Your task to perform on an android device: stop showing notifications on the lock screen Image 0: 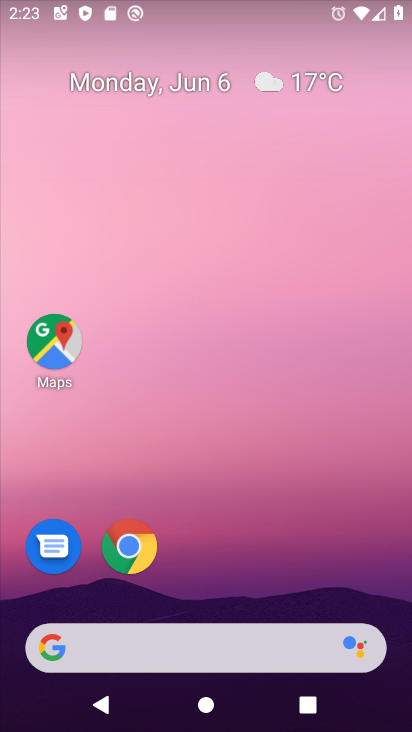
Step 0: drag from (232, 569) to (220, 276)
Your task to perform on an android device: stop showing notifications on the lock screen Image 1: 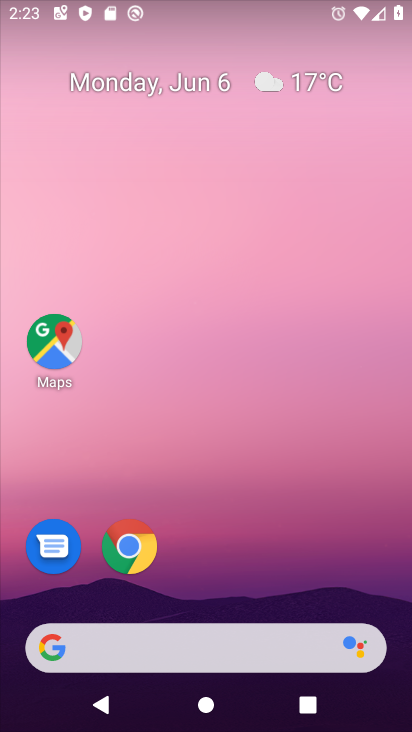
Step 1: drag from (207, 578) to (203, 315)
Your task to perform on an android device: stop showing notifications on the lock screen Image 2: 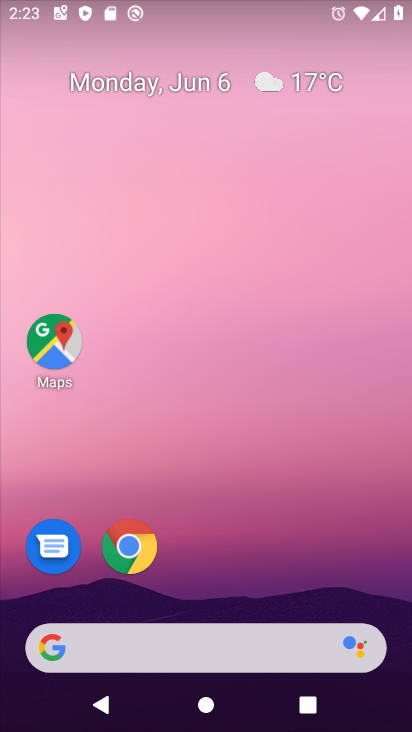
Step 2: drag from (192, 607) to (195, 195)
Your task to perform on an android device: stop showing notifications on the lock screen Image 3: 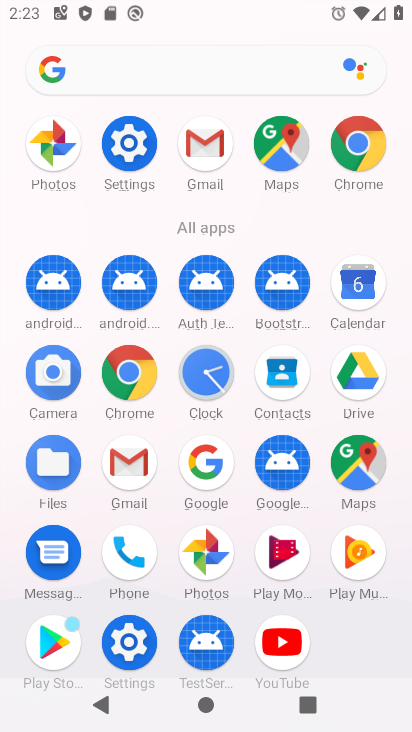
Step 3: click (118, 135)
Your task to perform on an android device: stop showing notifications on the lock screen Image 4: 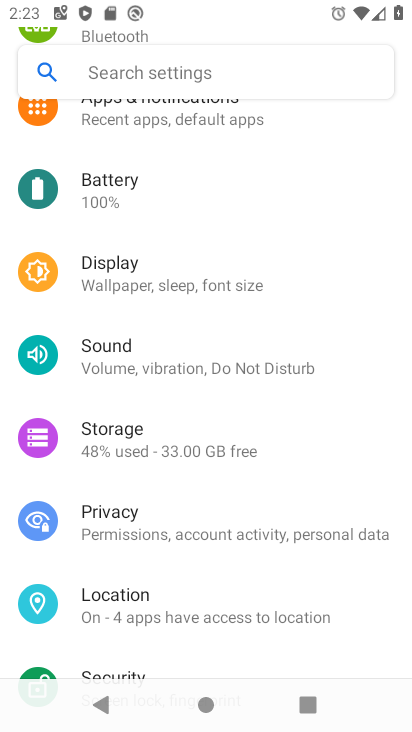
Step 4: drag from (218, 170) to (182, 538)
Your task to perform on an android device: stop showing notifications on the lock screen Image 5: 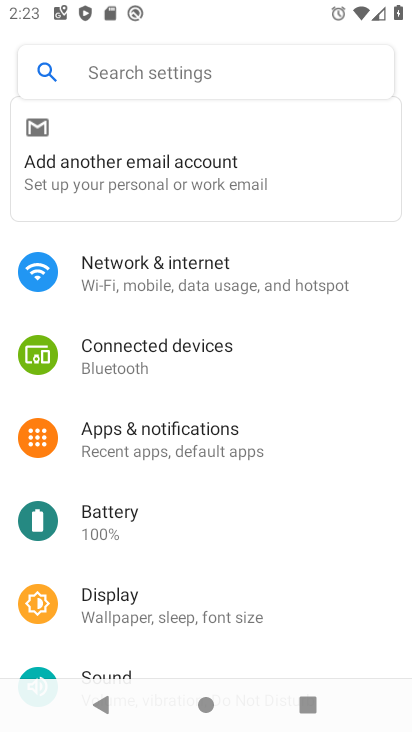
Step 5: click (157, 254)
Your task to perform on an android device: stop showing notifications on the lock screen Image 6: 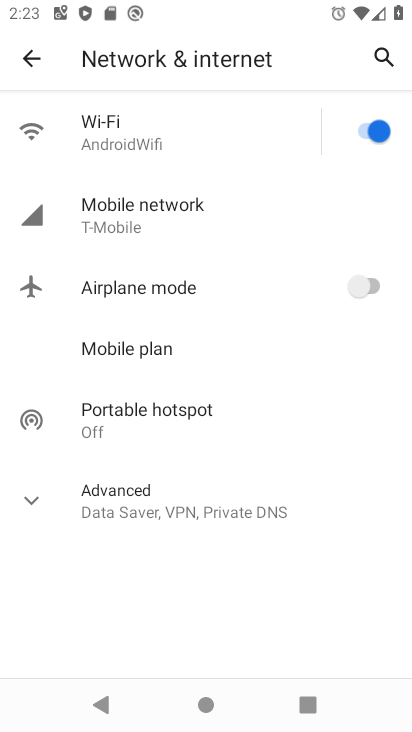
Step 6: click (38, 46)
Your task to perform on an android device: stop showing notifications on the lock screen Image 7: 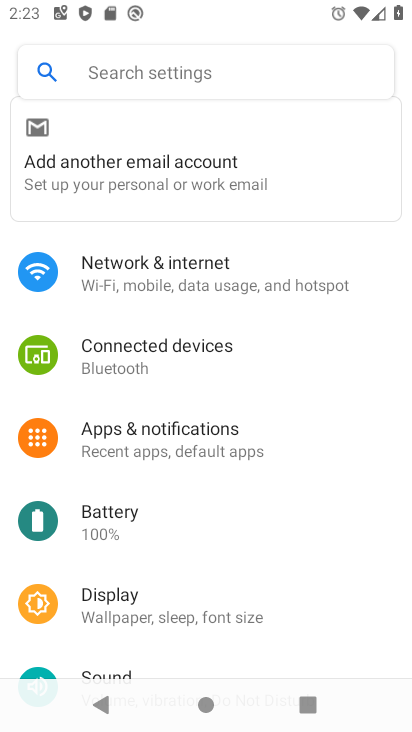
Step 7: click (171, 440)
Your task to perform on an android device: stop showing notifications on the lock screen Image 8: 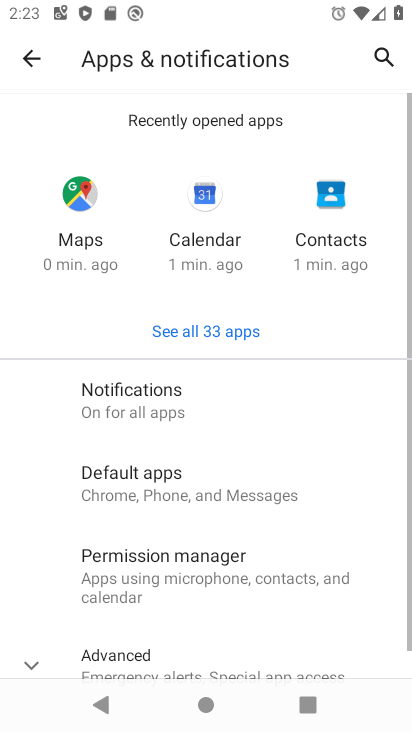
Step 8: click (159, 406)
Your task to perform on an android device: stop showing notifications on the lock screen Image 9: 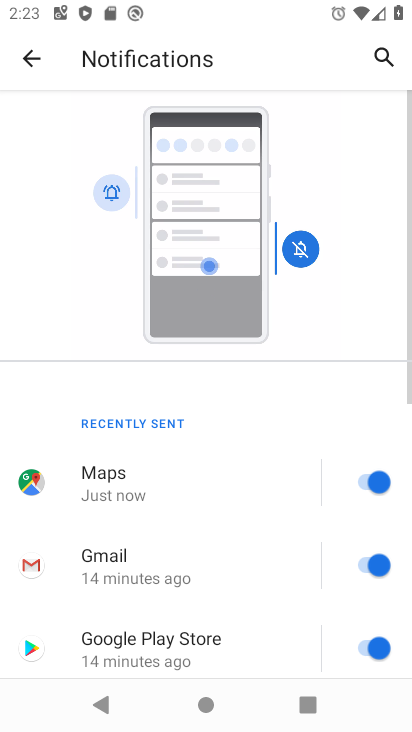
Step 9: drag from (189, 633) to (184, 325)
Your task to perform on an android device: stop showing notifications on the lock screen Image 10: 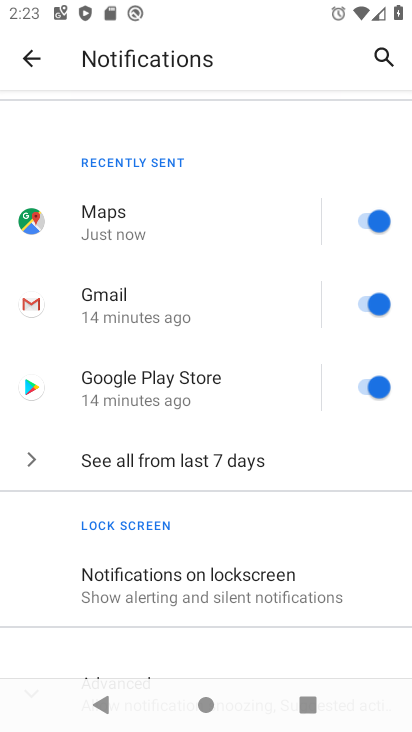
Step 10: click (172, 582)
Your task to perform on an android device: stop showing notifications on the lock screen Image 11: 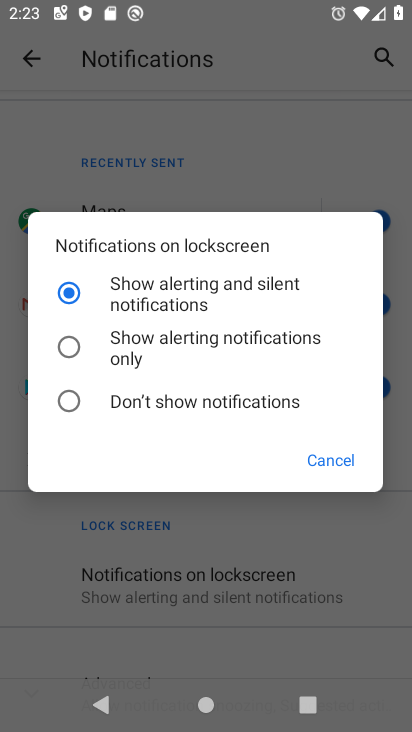
Step 11: click (163, 412)
Your task to perform on an android device: stop showing notifications on the lock screen Image 12: 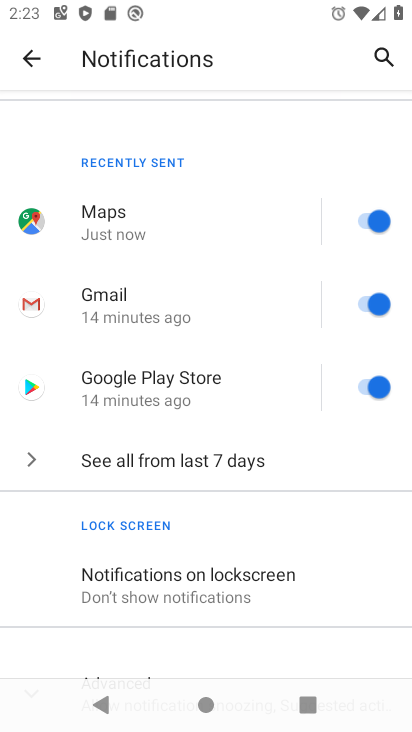
Step 12: task complete